Your task to perform on an android device: Add "macbook pro 15 inch" to the cart on newegg, then select checkout. Image 0: 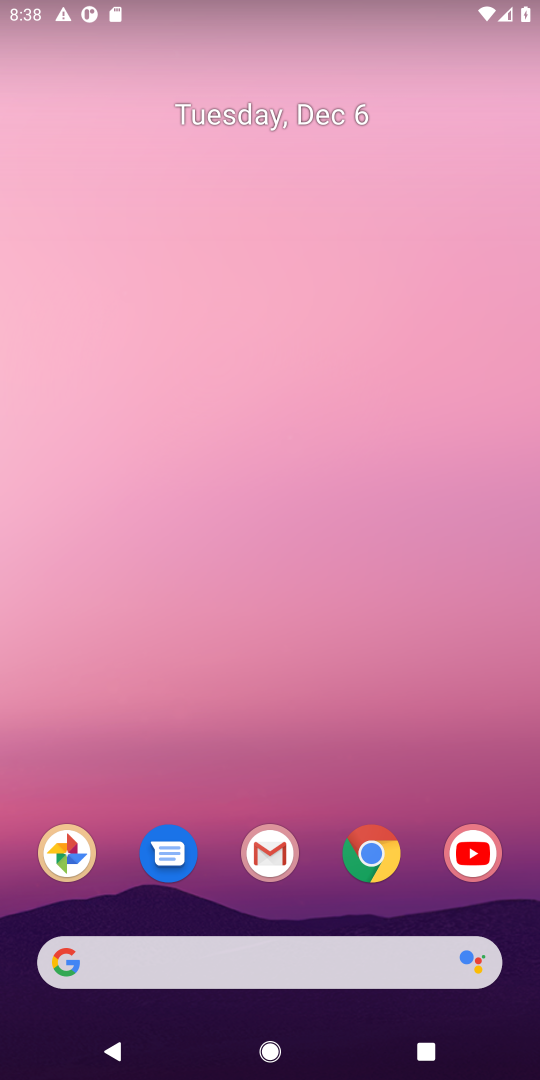
Step 0: drag from (244, 938) to (244, 250)
Your task to perform on an android device: Add "macbook pro 15 inch" to the cart on newegg, then select checkout. Image 1: 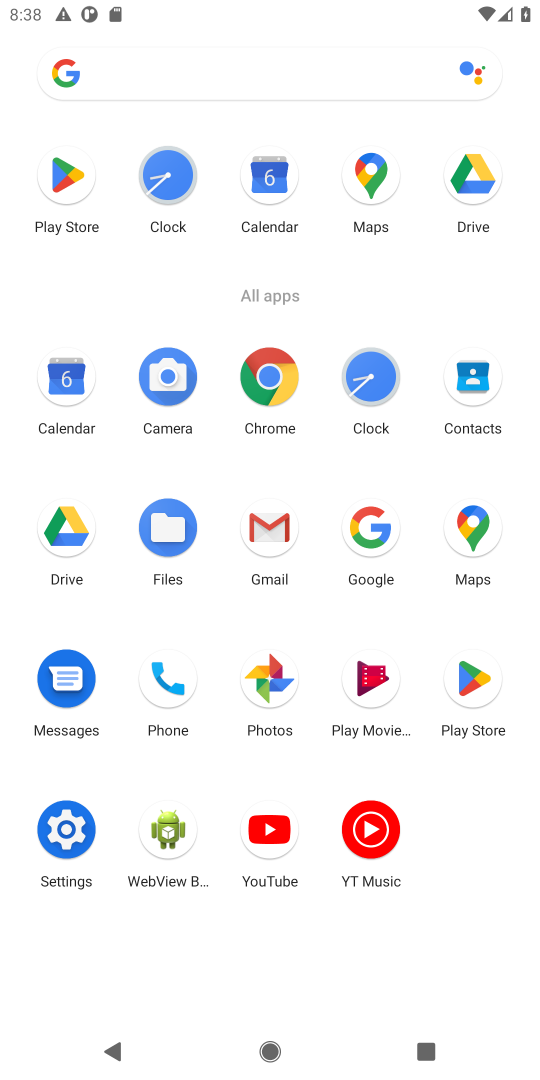
Step 1: click (375, 537)
Your task to perform on an android device: Add "macbook pro 15 inch" to the cart on newegg, then select checkout. Image 2: 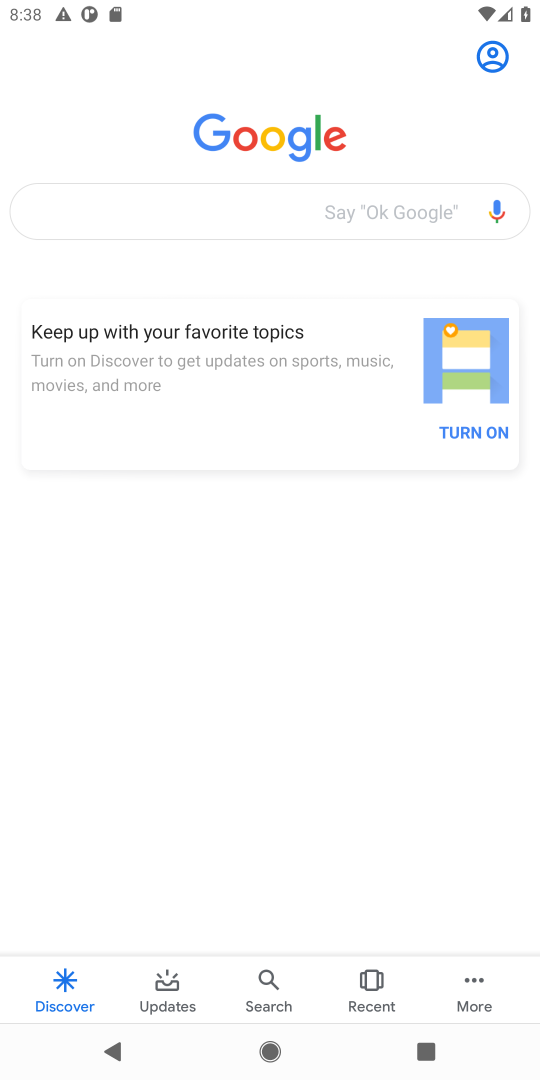
Step 2: click (227, 230)
Your task to perform on an android device: Add "macbook pro 15 inch" to the cart on newegg, then select checkout. Image 3: 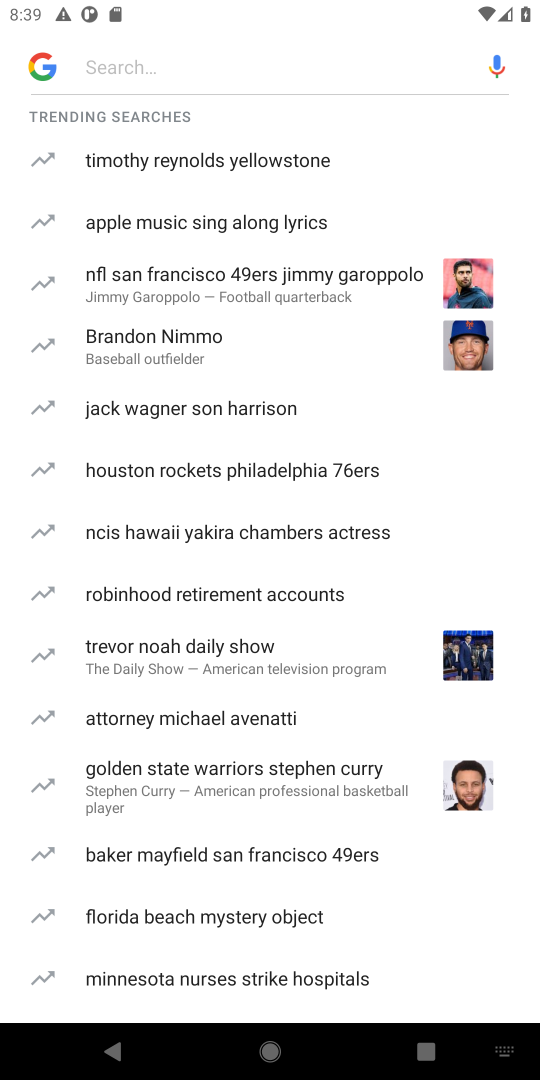
Step 3: type "newegg"
Your task to perform on an android device: Add "macbook pro 15 inch" to the cart on newegg, then select checkout. Image 4: 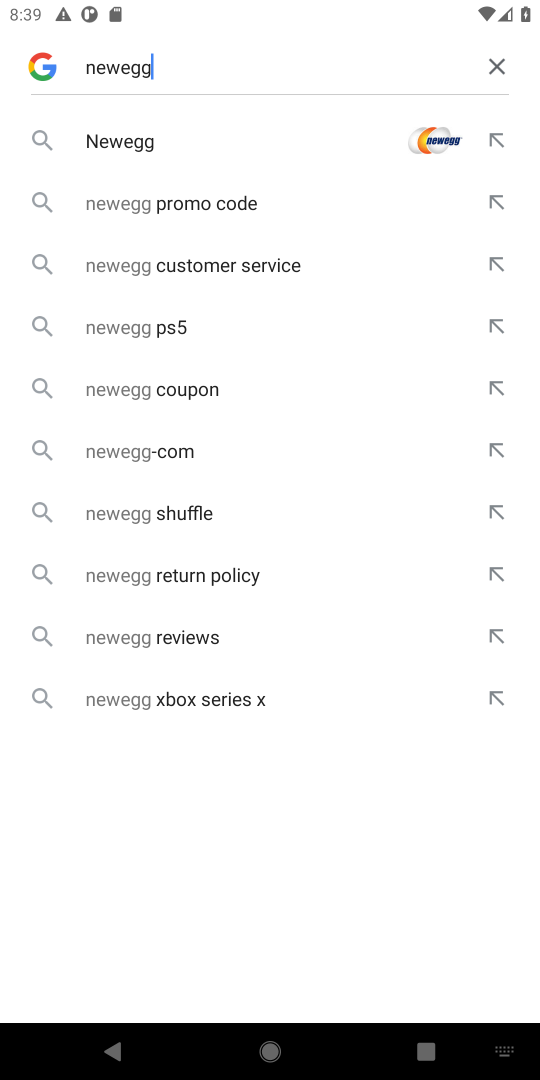
Step 4: click (441, 146)
Your task to perform on an android device: Add "macbook pro 15 inch" to the cart on newegg, then select checkout. Image 5: 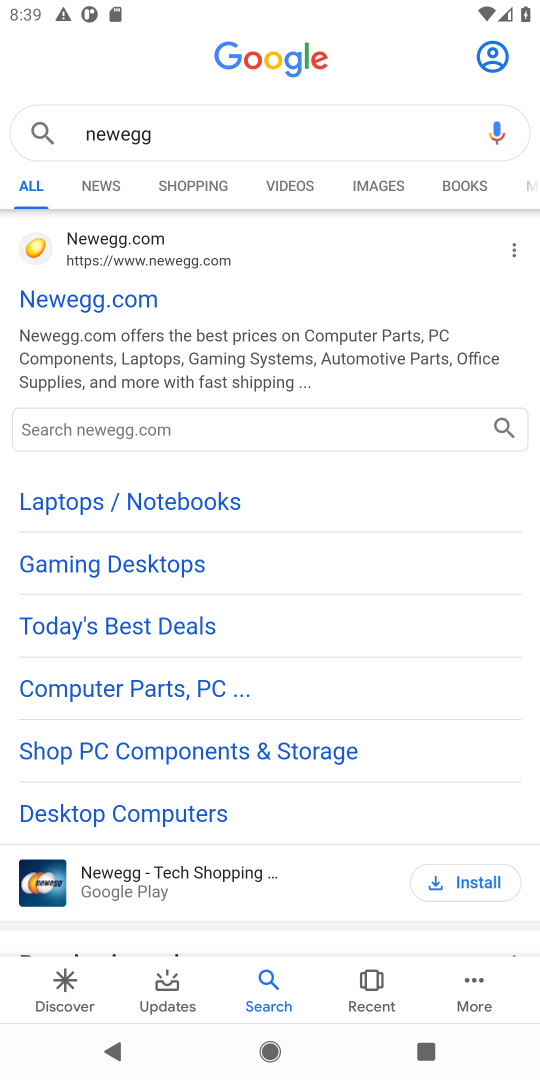
Step 5: click (55, 304)
Your task to perform on an android device: Add "macbook pro 15 inch" to the cart on newegg, then select checkout. Image 6: 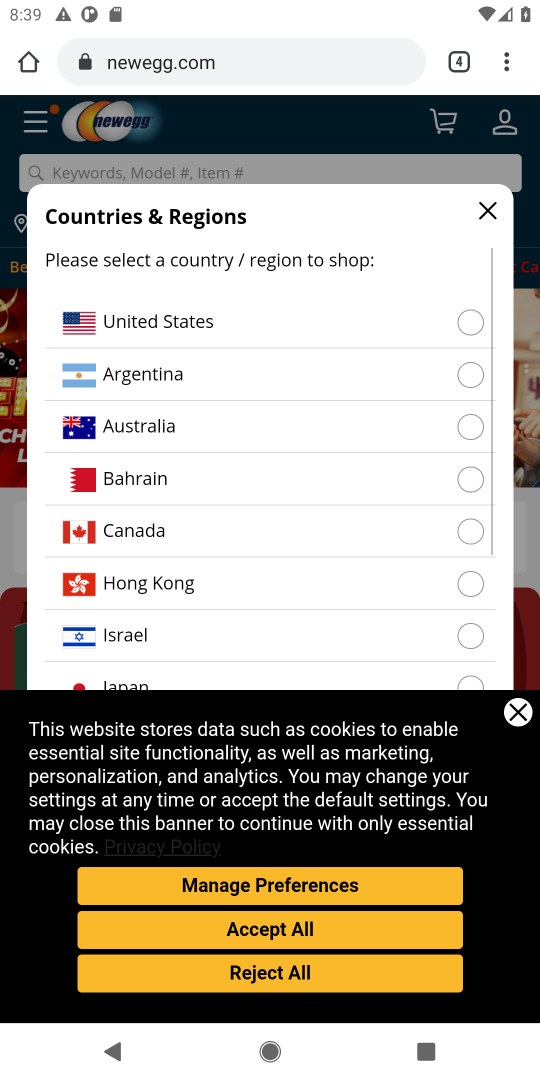
Step 6: click (493, 211)
Your task to perform on an android device: Add "macbook pro 15 inch" to the cart on newegg, then select checkout. Image 7: 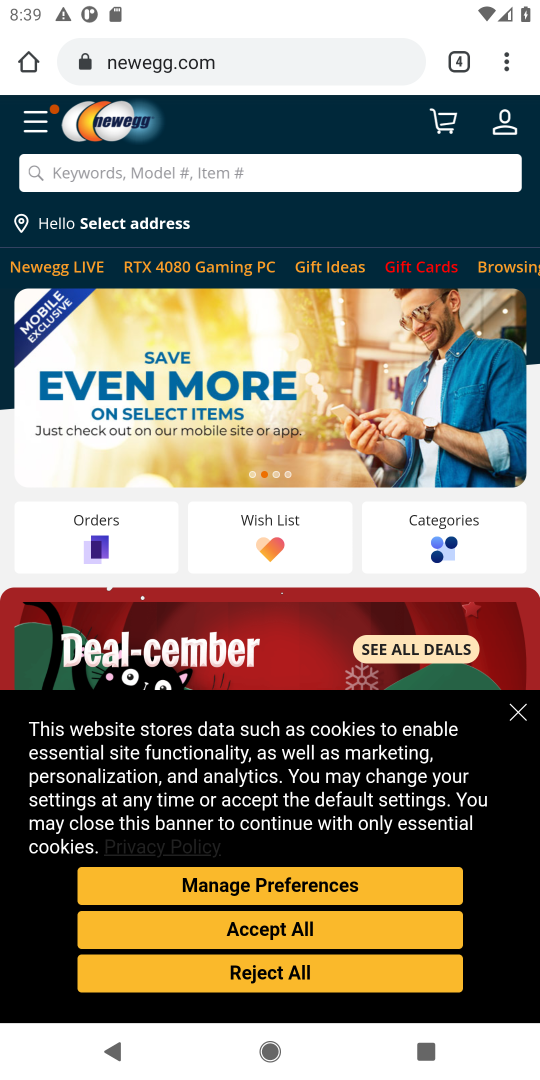
Step 7: click (107, 173)
Your task to perform on an android device: Add "macbook pro 15 inch" to the cart on newegg, then select checkout. Image 8: 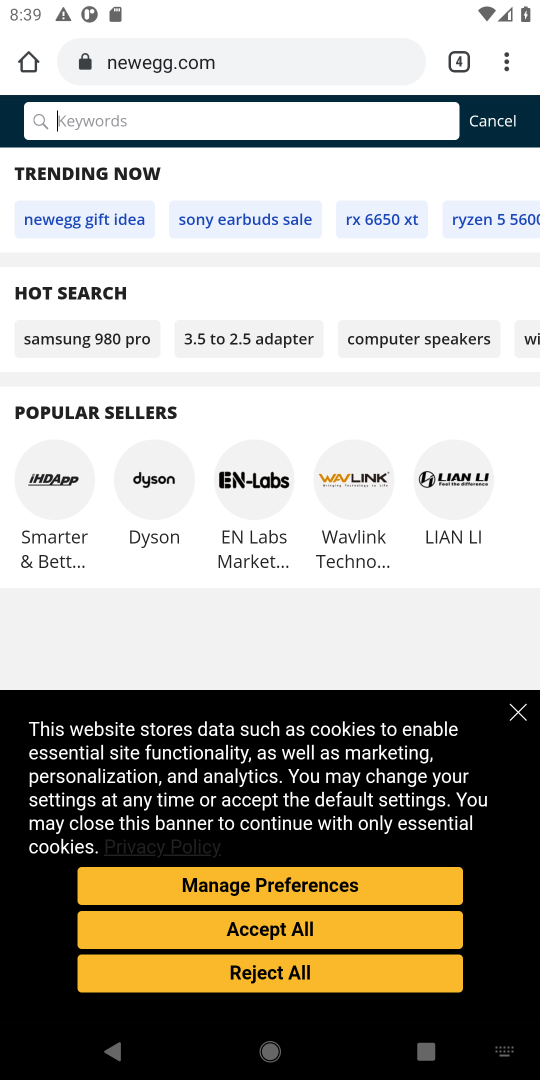
Step 8: type "macbook pro 15 inch"
Your task to perform on an android device: Add "macbook pro 15 inch" to the cart on newegg, then select checkout. Image 9: 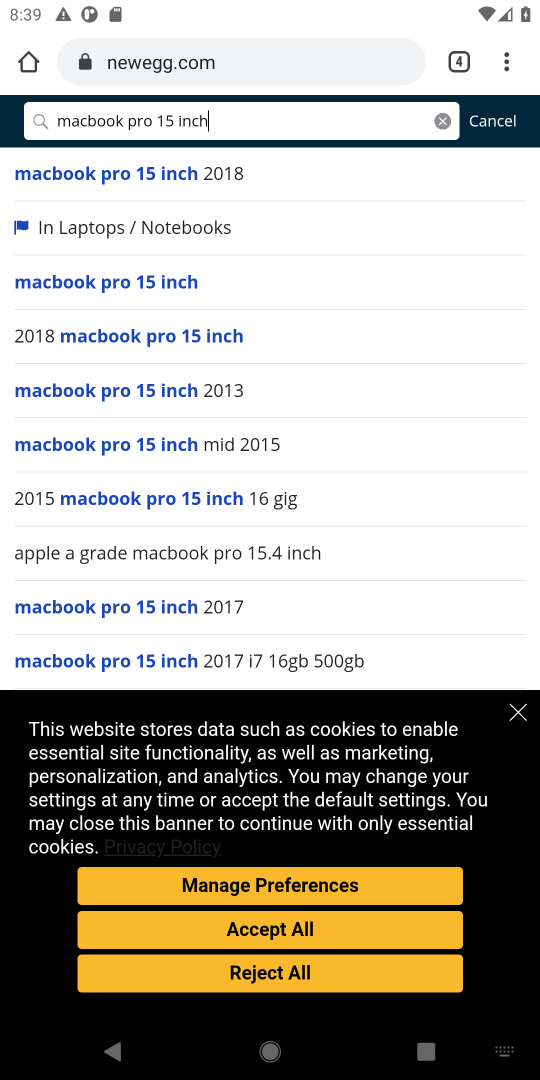
Step 9: click (150, 160)
Your task to perform on an android device: Add "macbook pro 15 inch" to the cart on newegg, then select checkout. Image 10: 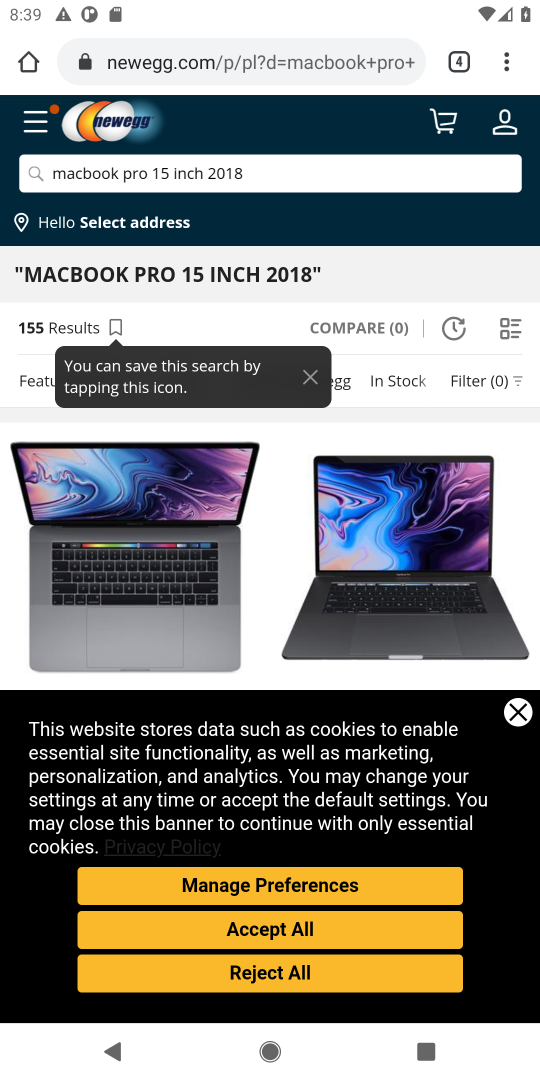
Step 10: click (533, 718)
Your task to perform on an android device: Add "macbook pro 15 inch" to the cart on newegg, then select checkout. Image 11: 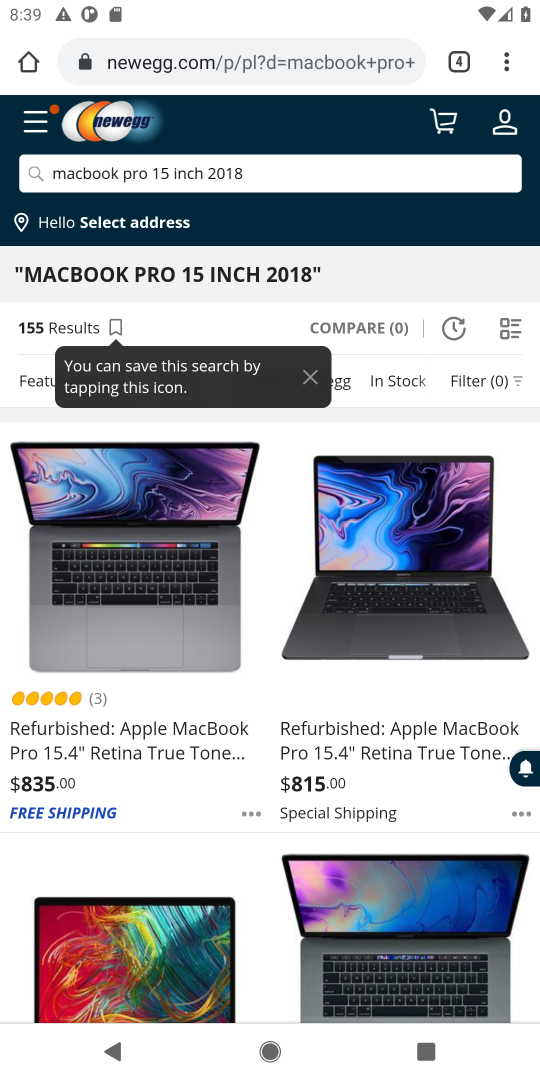
Step 11: click (82, 546)
Your task to perform on an android device: Add "macbook pro 15 inch" to the cart on newegg, then select checkout. Image 12: 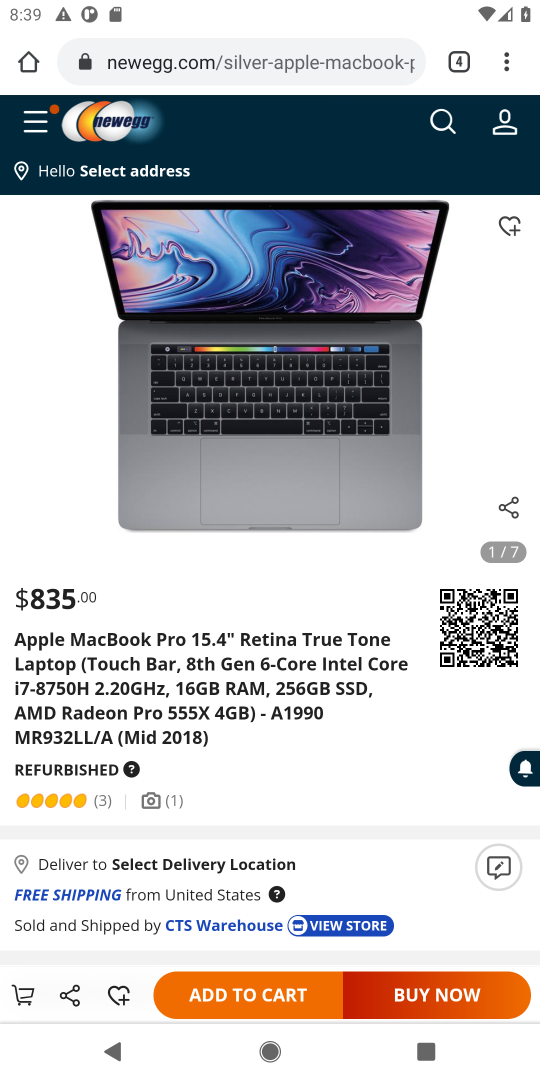
Step 12: click (261, 993)
Your task to perform on an android device: Add "macbook pro 15 inch" to the cart on newegg, then select checkout. Image 13: 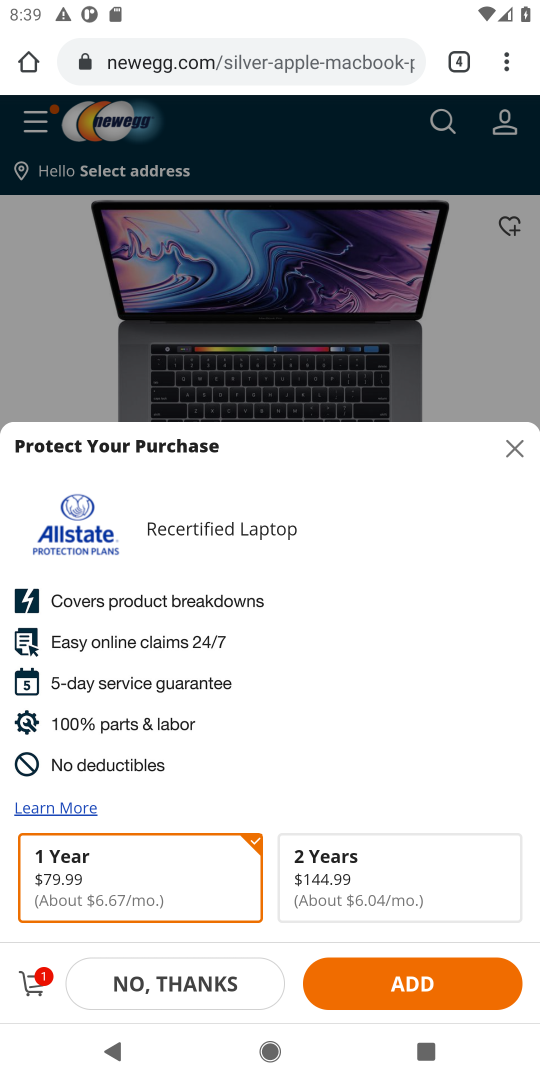
Step 13: click (501, 447)
Your task to perform on an android device: Add "macbook pro 15 inch" to the cart on newegg, then select checkout. Image 14: 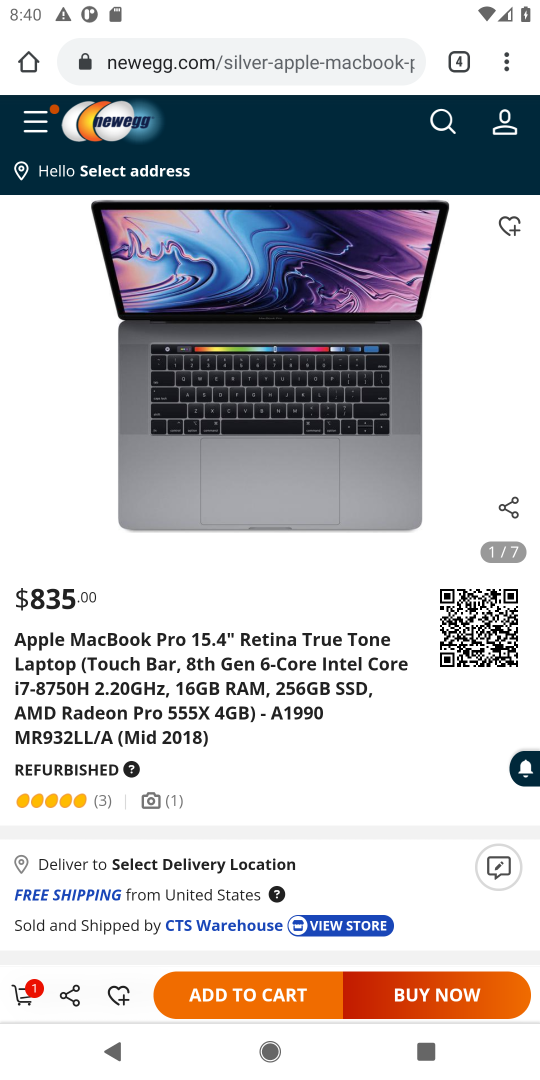
Step 14: click (26, 992)
Your task to perform on an android device: Add "macbook pro 15 inch" to the cart on newegg, then select checkout. Image 15: 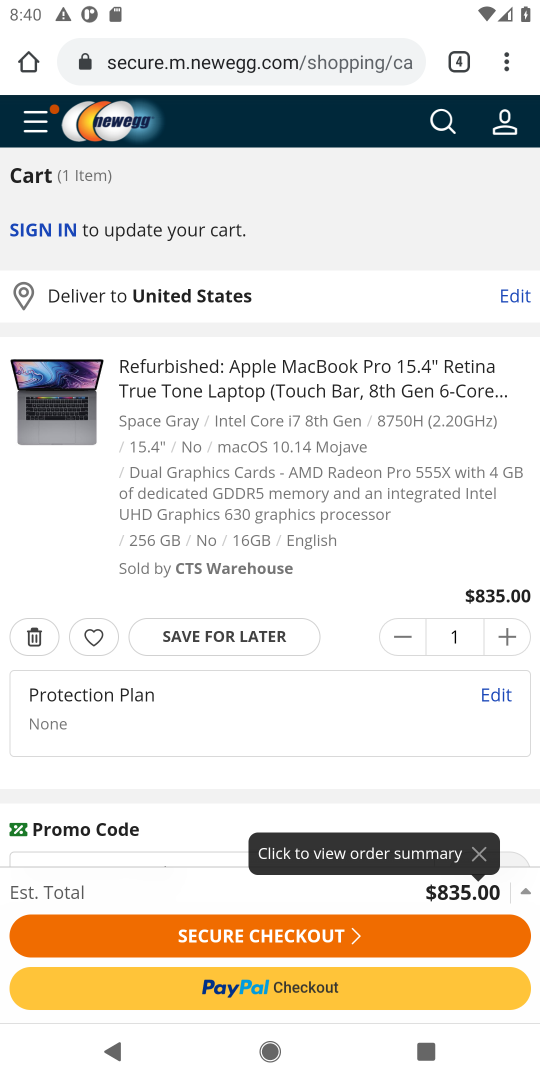
Step 15: drag from (187, 765) to (206, 375)
Your task to perform on an android device: Add "macbook pro 15 inch" to the cart on newegg, then select checkout. Image 16: 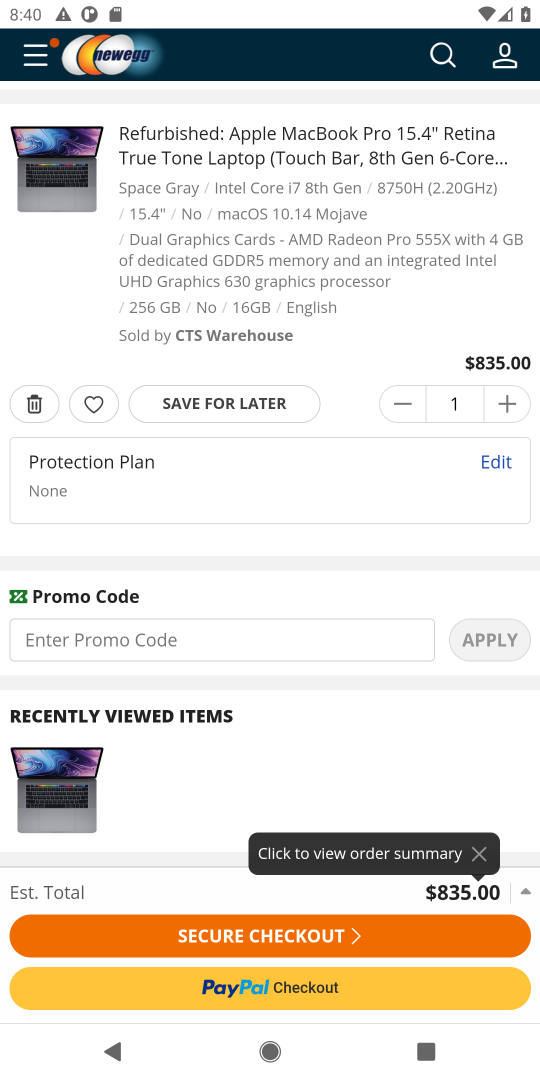
Step 16: click (279, 929)
Your task to perform on an android device: Add "macbook pro 15 inch" to the cart on newegg, then select checkout. Image 17: 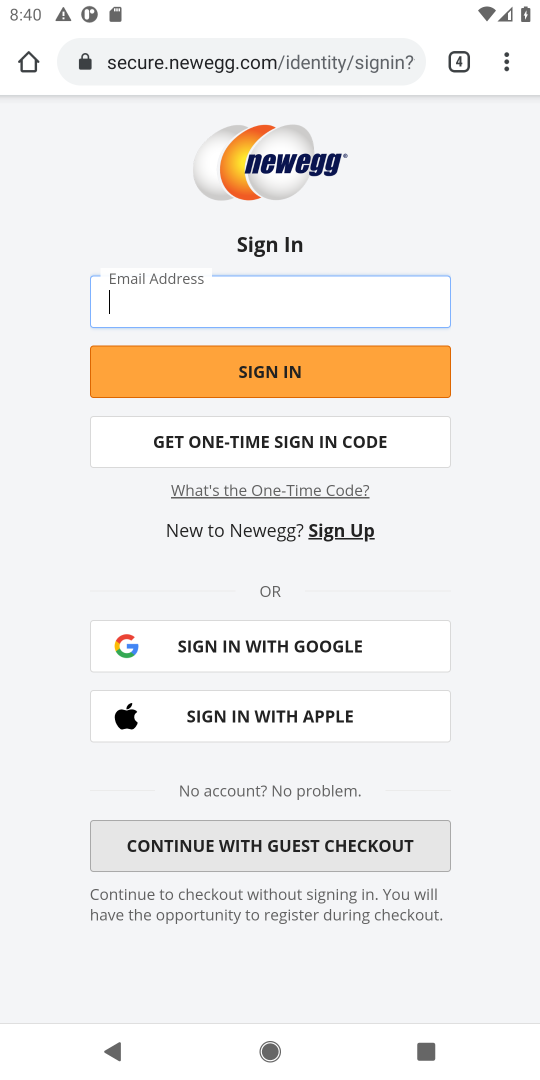
Step 17: task complete